Your task to perform on an android device: add a contact in the contacts app Image 0: 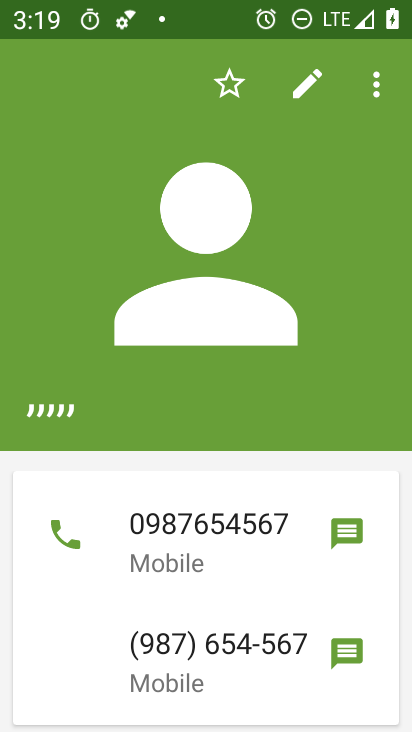
Step 0: press home button
Your task to perform on an android device: add a contact in the contacts app Image 1: 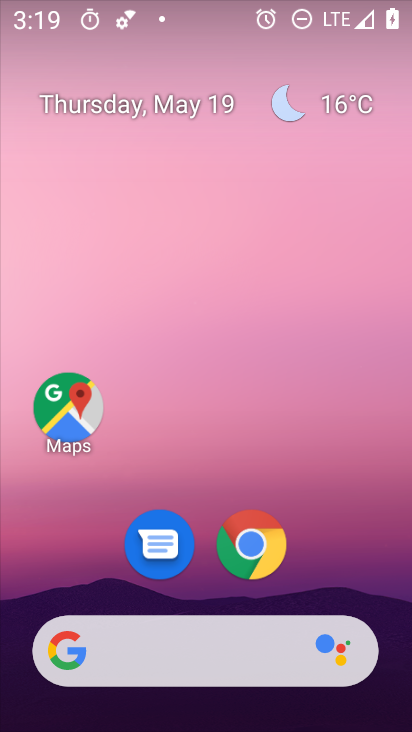
Step 1: drag from (324, 558) to (341, 152)
Your task to perform on an android device: add a contact in the contacts app Image 2: 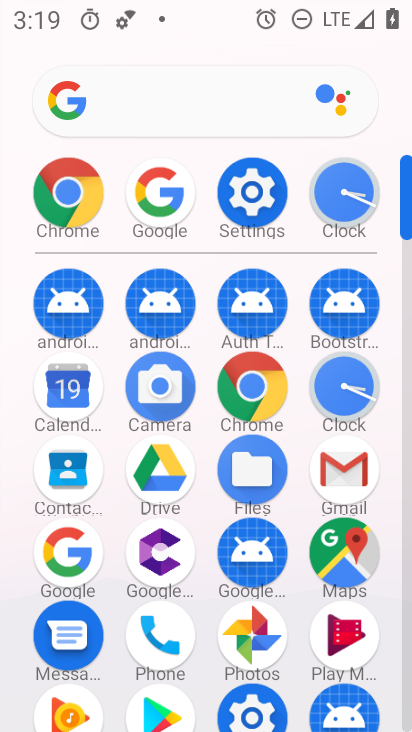
Step 2: drag from (293, 553) to (316, 180)
Your task to perform on an android device: add a contact in the contacts app Image 3: 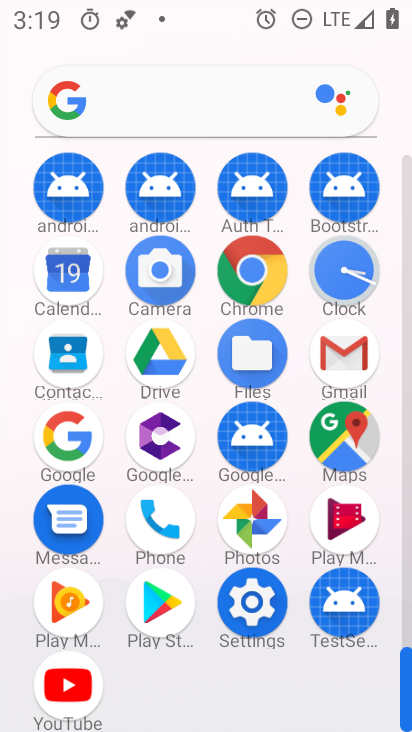
Step 3: click (63, 373)
Your task to perform on an android device: add a contact in the contacts app Image 4: 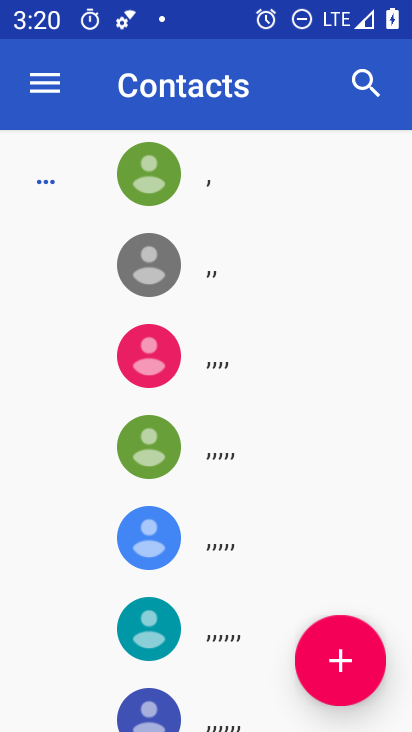
Step 4: click (350, 645)
Your task to perform on an android device: add a contact in the contacts app Image 5: 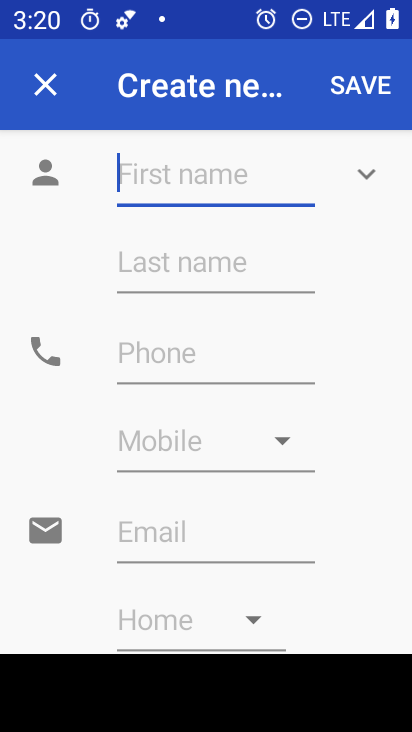
Step 5: type "eer"
Your task to perform on an android device: add a contact in the contacts app Image 6: 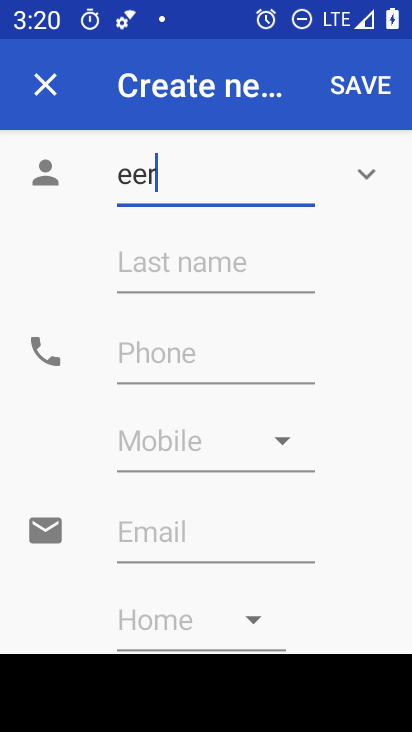
Step 6: click (227, 360)
Your task to perform on an android device: add a contact in the contacts app Image 7: 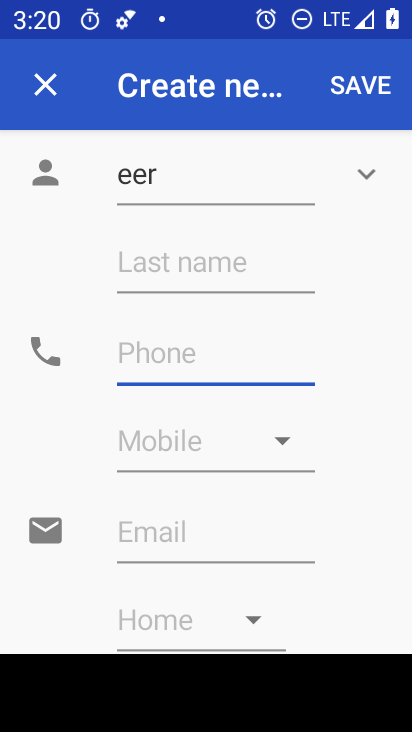
Step 7: type "5555443321"
Your task to perform on an android device: add a contact in the contacts app Image 8: 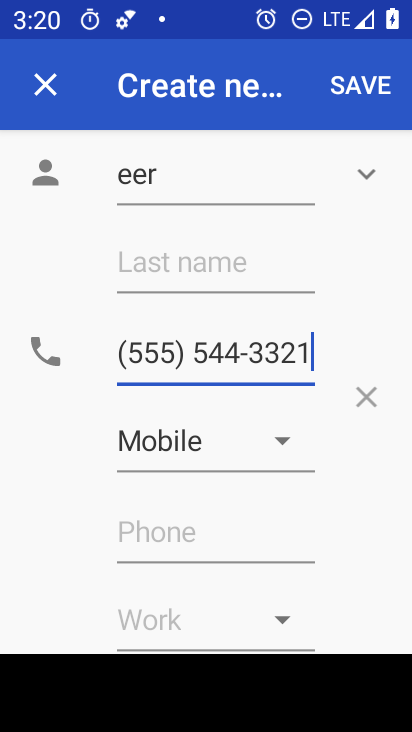
Step 8: click (376, 79)
Your task to perform on an android device: add a contact in the contacts app Image 9: 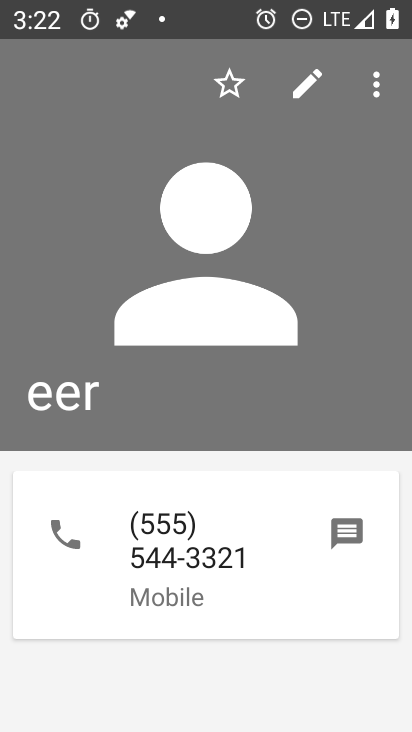
Step 9: task complete